Your task to perform on an android device: Open network settings Image 0: 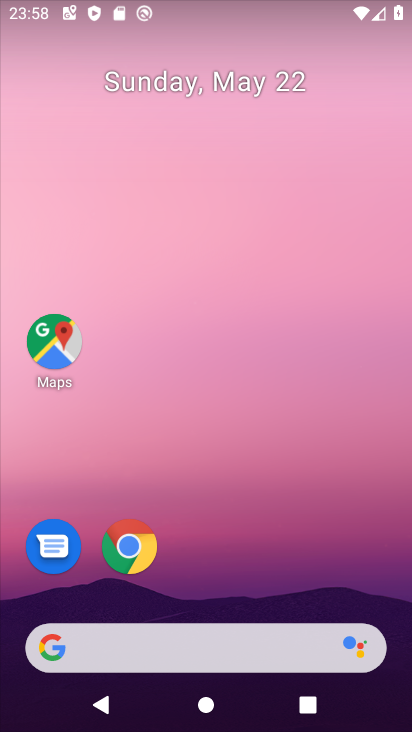
Step 0: drag from (206, 586) to (227, 171)
Your task to perform on an android device: Open network settings Image 1: 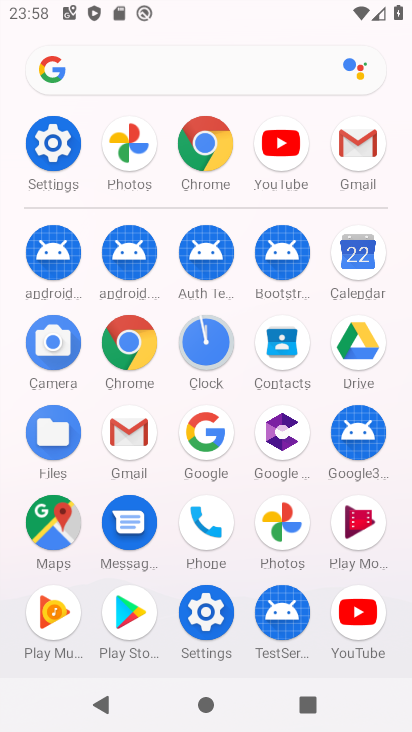
Step 1: click (226, 605)
Your task to perform on an android device: Open network settings Image 2: 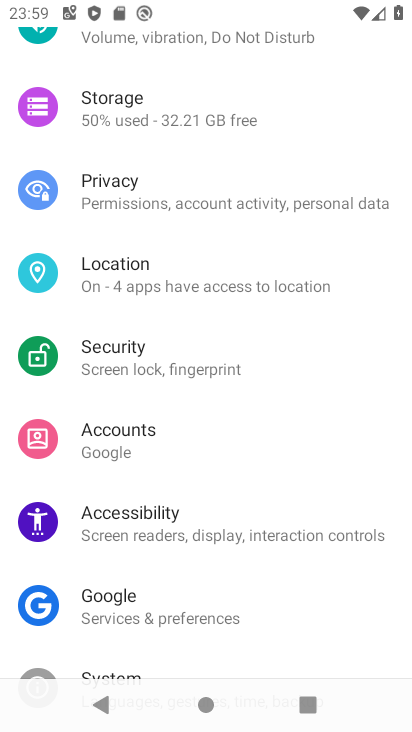
Step 2: drag from (226, 634) to (232, 331)
Your task to perform on an android device: Open network settings Image 3: 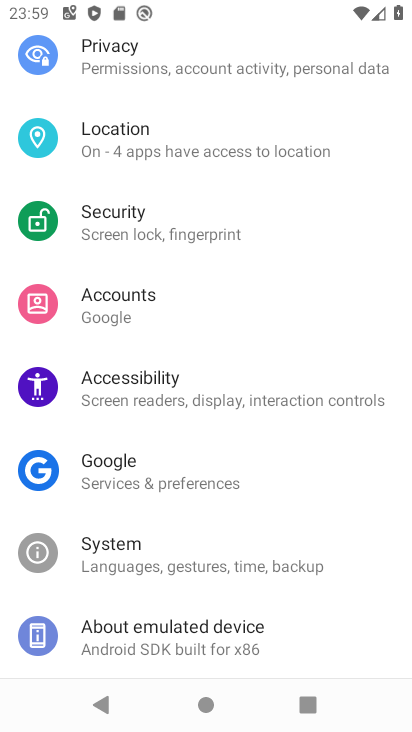
Step 3: drag from (241, 270) to (241, 731)
Your task to perform on an android device: Open network settings Image 4: 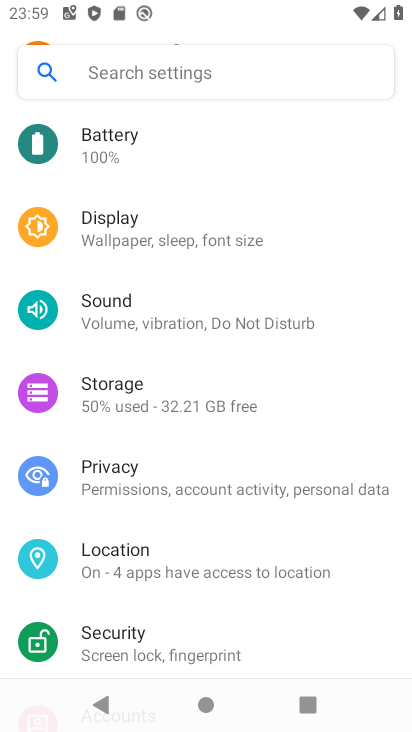
Step 4: drag from (234, 577) to (271, 263)
Your task to perform on an android device: Open network settings Image 5: 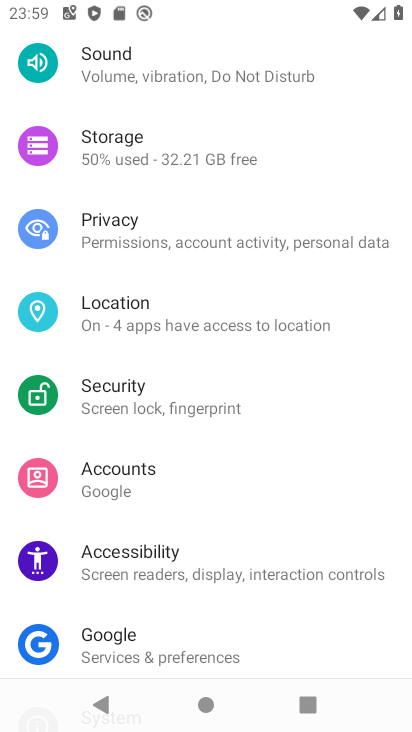
Step 5: drag from (211, 204) to (178, 575)
Your task to perform on an android device: Open network settings Image 6: 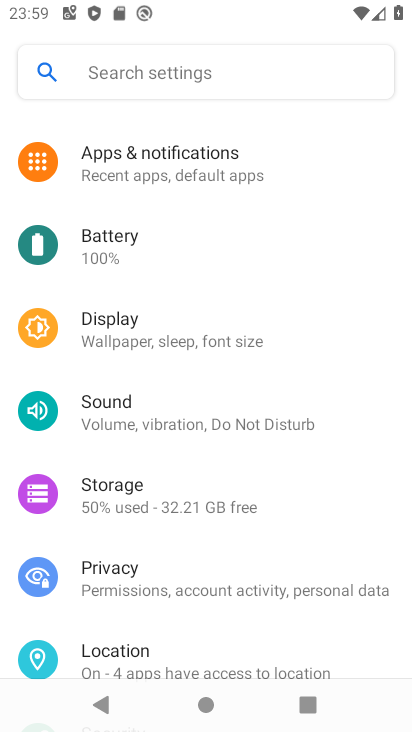
Step 6: drag from (182, 569) to (199, 183)
Your task to perform on an android device: Open network settings Image 7: 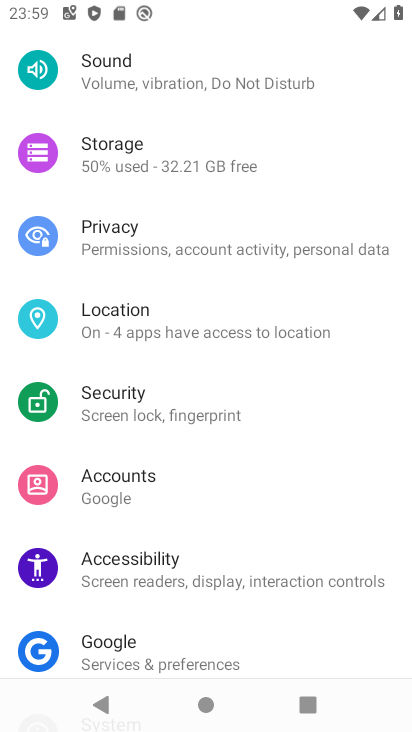
Step 7: drag from (154, 325) to (201, 178)
Your task to perform on an android device: Open network settings Image 8: 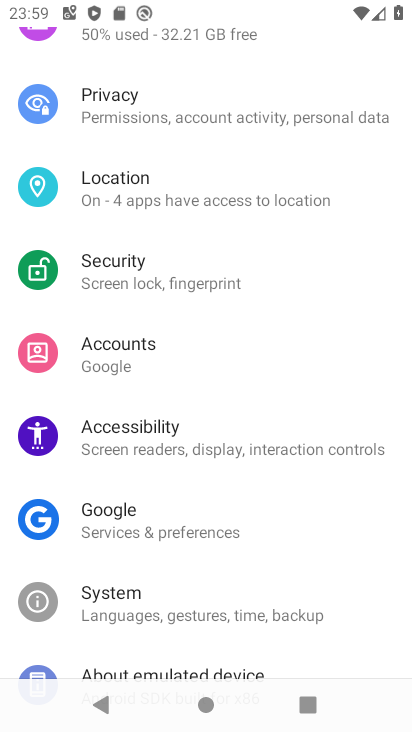
Step 8: drag from (195, 178) to (258, 671)
Your task to perform on an android device: Open network settings Image 9: 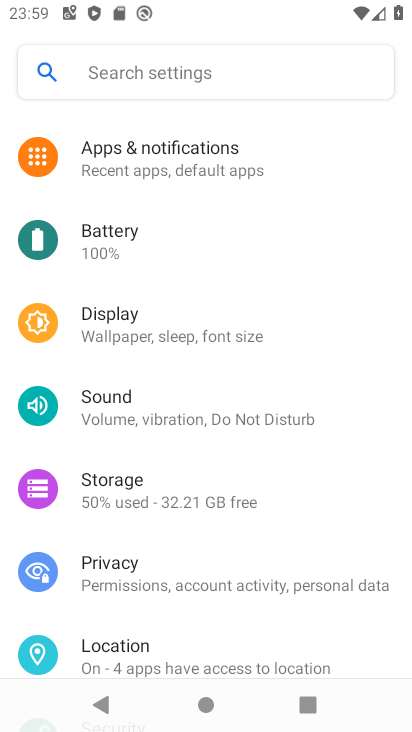
Step 9: drag from (193, 204) to (276, 616)
Your task to perform on an android device: Open network settings Image 10: 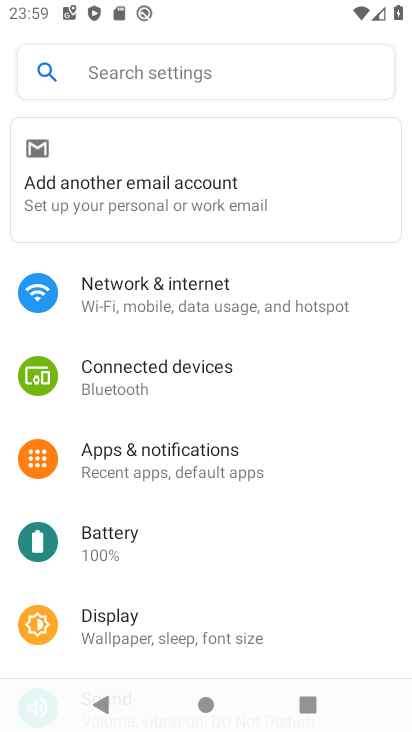
Step 10: click (151, 280)
Your task to perform on an android device: Open network settings Image 11: 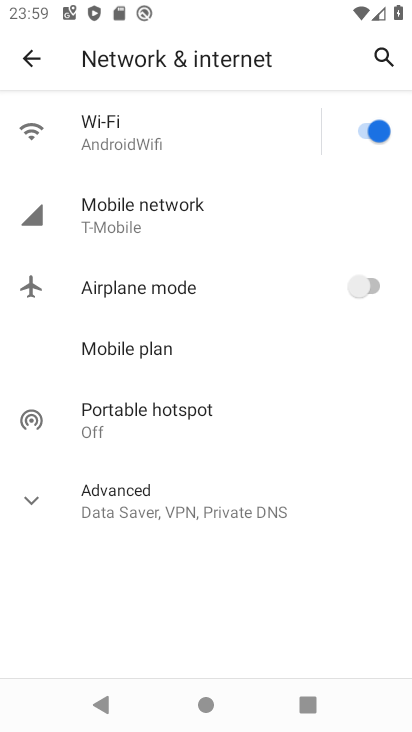
Step 11: drag from (179, 565) to (196, 210)
Your task to perform on an android device: Open network settings Image 12: 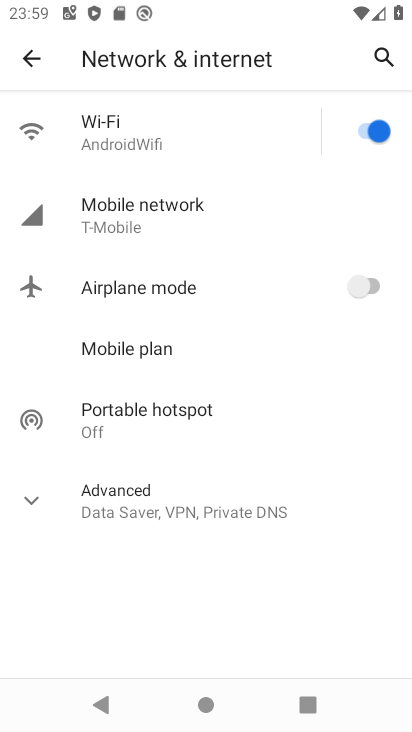
Step 12: click (157, 483)
Your task to perform on an android device: Open network settings Image 13: 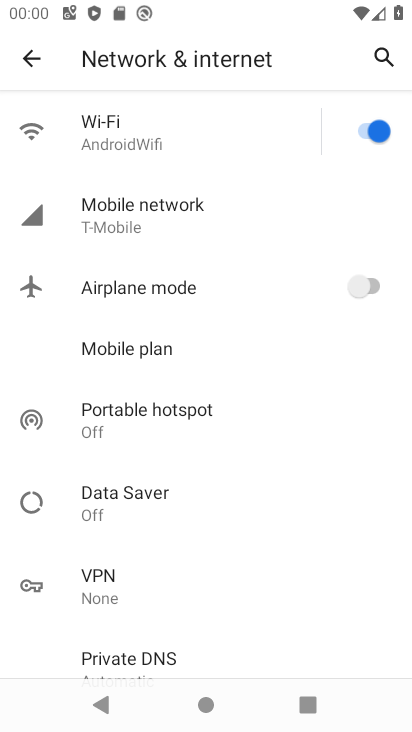
Step 13: task complete